Your task to perform on an android device: Go to Maps Image 0: 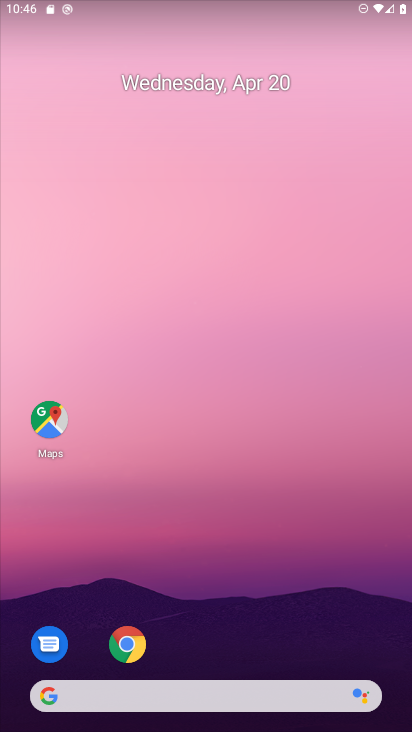
Step 0: drag from (343, 617) to (212, 77)
Your task to perform on an android device: Go to Maps Image 1: 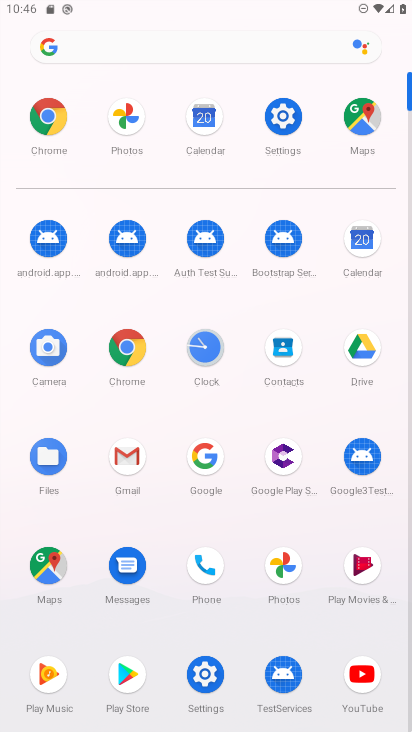
Step 1: click (47, 565)
Your task to perform on an android device: Go to Maps Image 2: 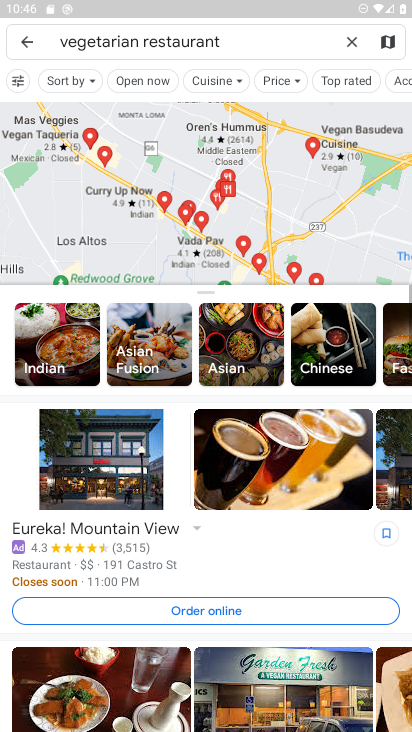
Step 2: click (350, 31)
Your task to perform on an android device: Go to Maps Image 3: 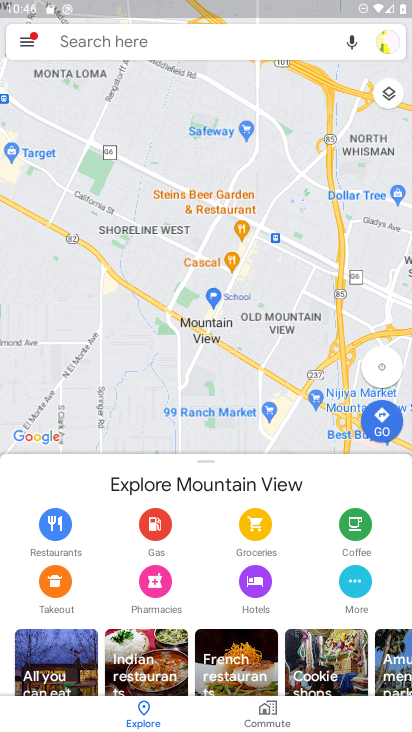
Step 3: task complete